Your task to perform on an android device: turn on showing notifications on the lock screen Image 0: 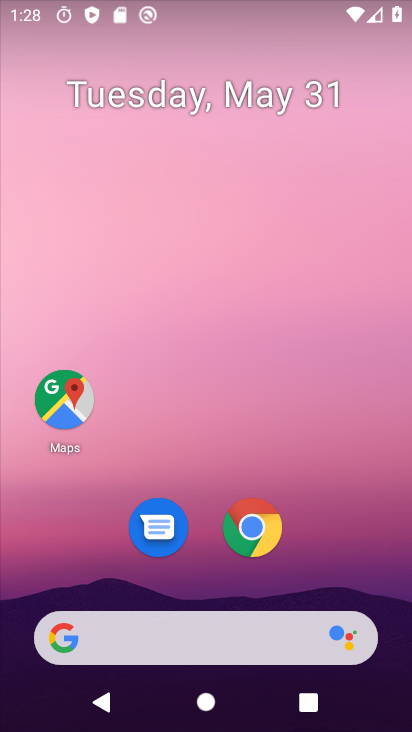
Step 0: drag from (159, 728) to (183, 3)
Your task to perform on an android device: turn on showing notifications on the lock screen Image 1: 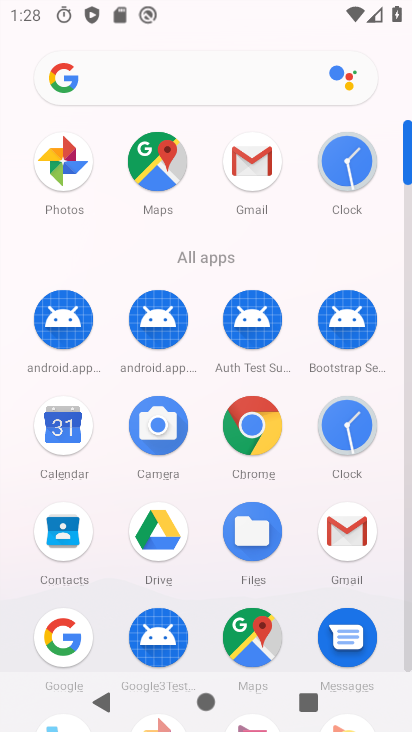
Step 1: drag from (114, 600) to (121, 209)
Your task to perform on an android device: turn on showing notifications on the lock screen Image 2: 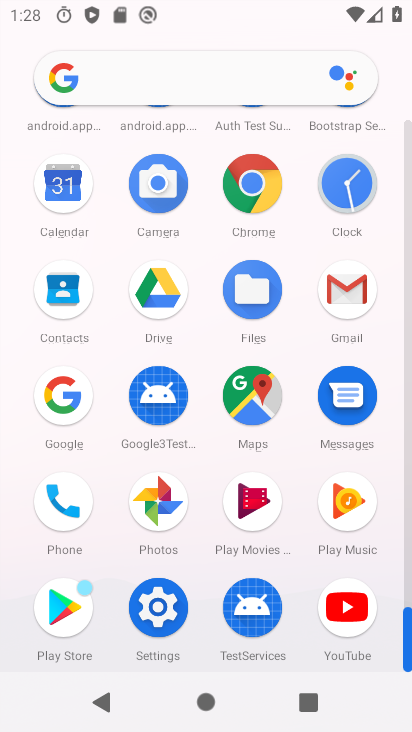
Step 2: click (154, 623)
Your task to perform on an android device: turn on showing notifications on the lock screen Image 3: 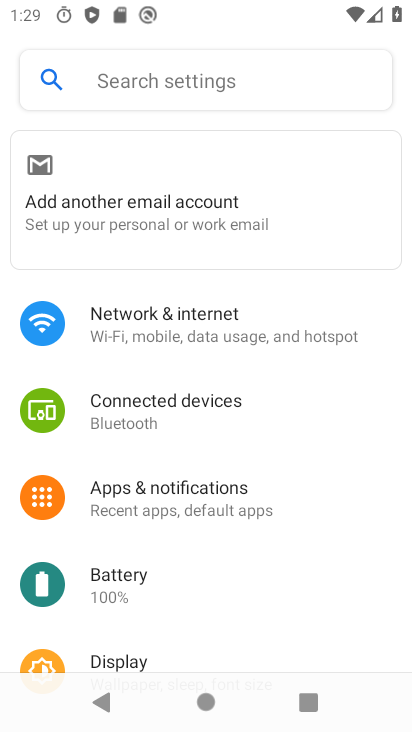
Step 3: click (96, 502)
Your task to perform on an android device: turn on showing notifications on the lock screen Image 4: 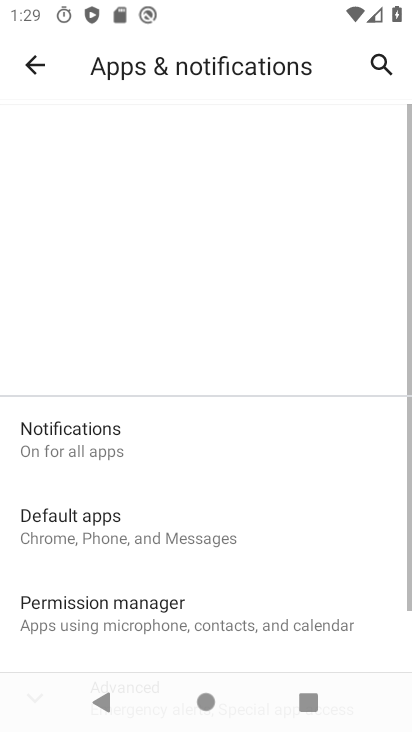
Step 4: click (102, 454)
Your task to perform on an android device: turn on showing notifications on the lock screen Image 5: 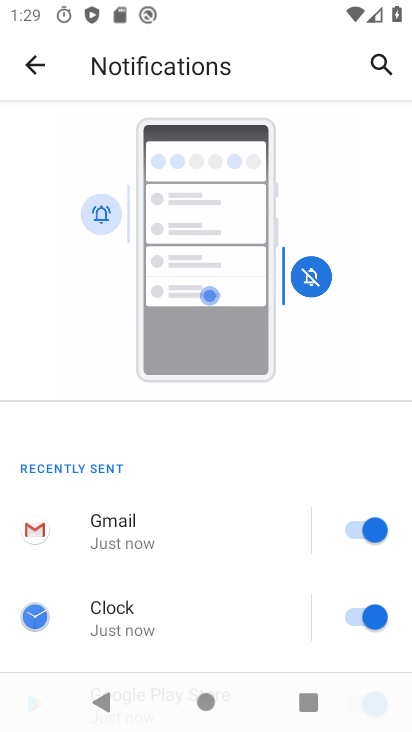
Step 5: drag from (202, 562) to (230, 251)
Your task to perform on an android device: turn on showing notifications on the lock screen Image 6: 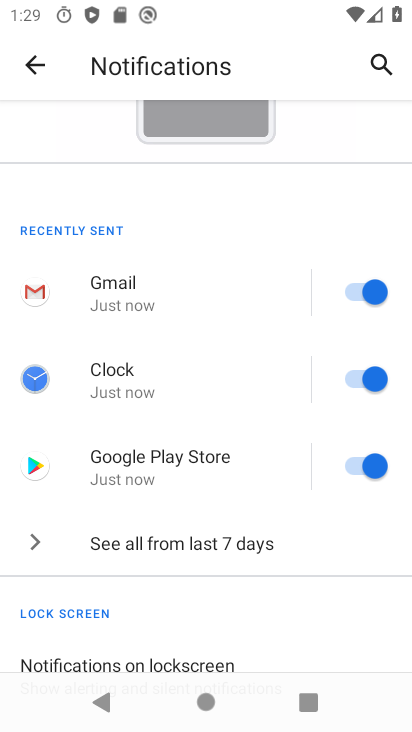
Step 6: click (178, 661)
Your task to perform on an android device: turn on showing notifications on the lock screen Image 7: 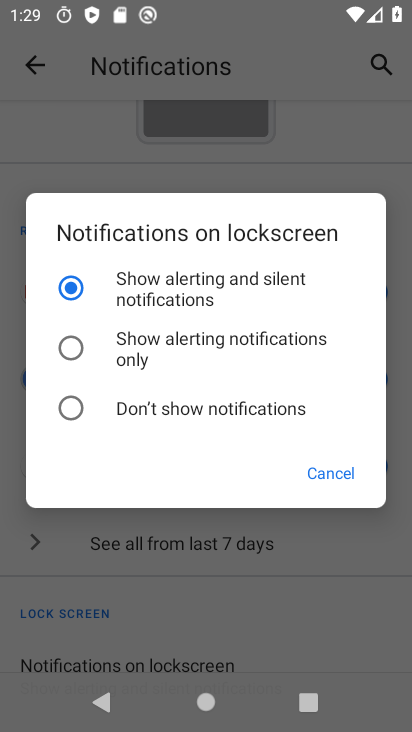
Step 7: task complete